Your task to perform on an android device: Open accessibility settings Image 0: 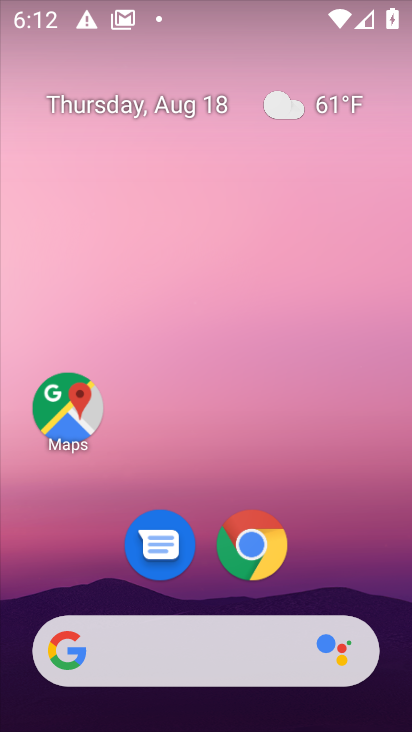
Step 0: drag from (314, 587) to (215, 205)
Your task to perform on an android device: Open accessibility settings Image 1: 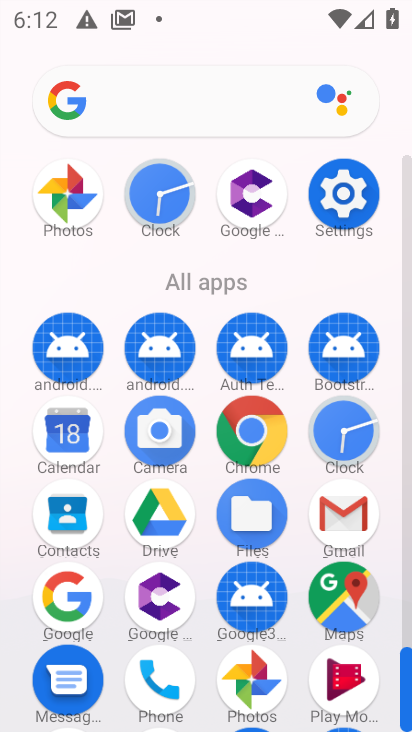
Step 1: click (343, 193)
Your task to perform on an android device: Open accessibility settings Image 2: 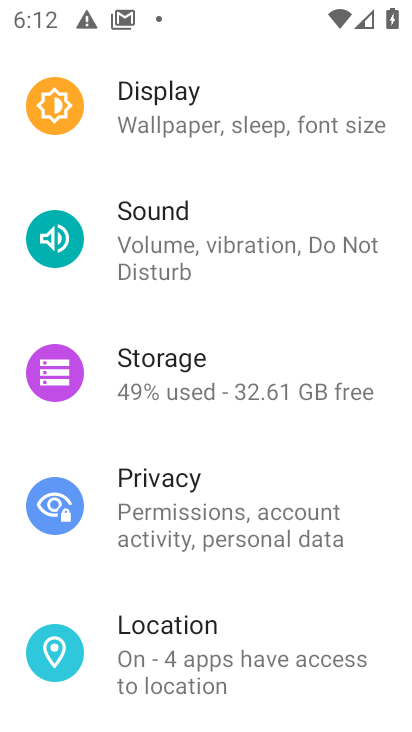
Step 2: drag from (257, 566) to (225, 129)
Your task to perform on an android device: Open accessibility settings Image 3: 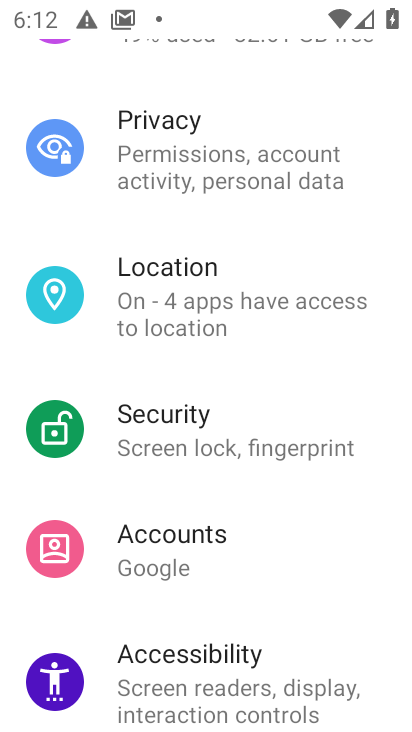
Step 3: click (198, 650)
Your task to perform on an android device: Open accessibility settings Image 4: 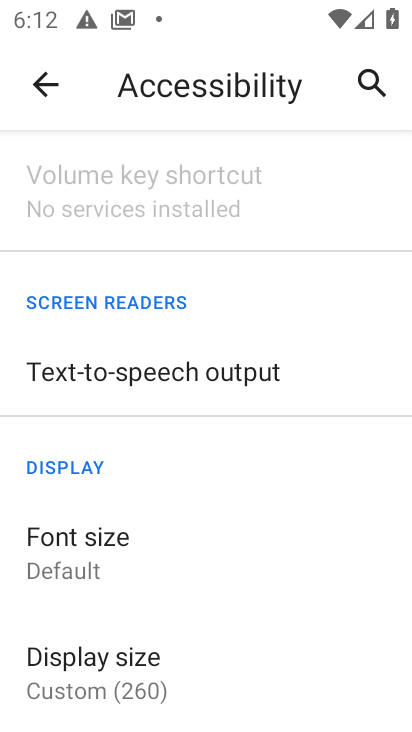
Step 4: task complete